Your task to perform on an android device: turn off notifications in google photos Image 0: 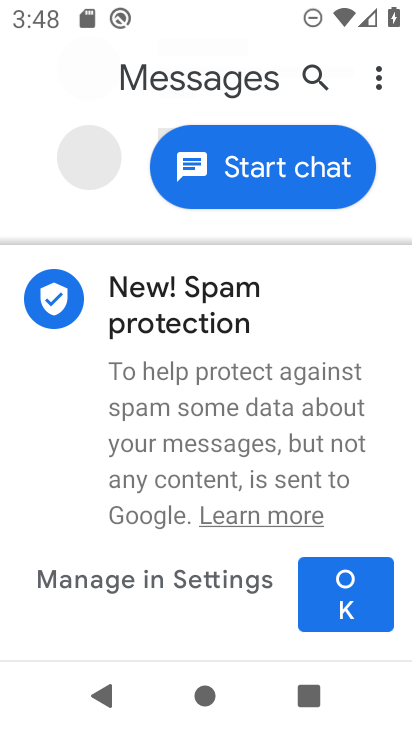
Step 0: press back button
Your task to perform on an android device: turn off notifications in google photos Image 1: 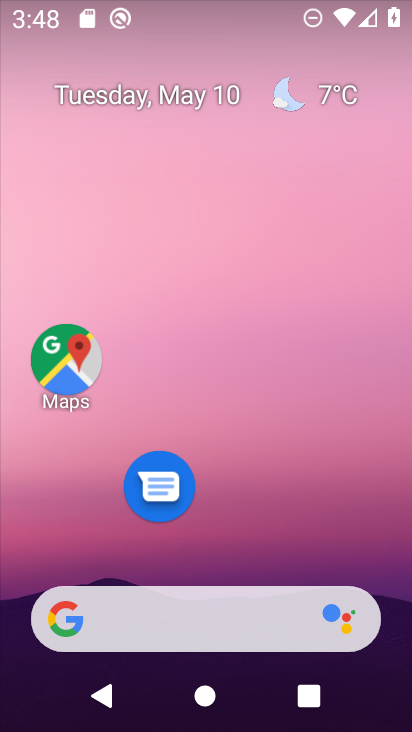
Step 1: drag from (324, 475) to (218, 32)
Your task to perform on an android device: turn off notifications in google photos Image 2: 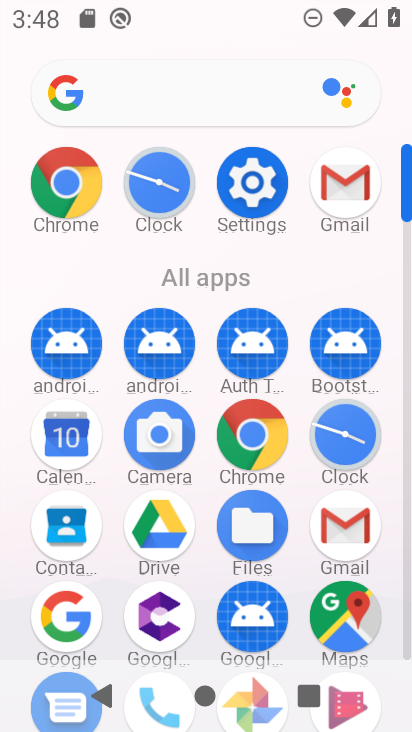
Step 2: drag from (9, 561) to (3, 216)
Your task to perform on an android device: turn off notifications in google photos Image 3: 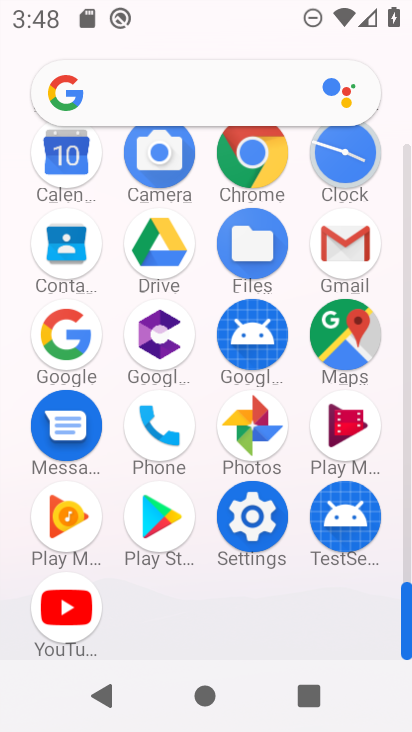
Step 3: click (250, 498)
Your task to perform on an android device: turn off notifications in google photos Image 4: 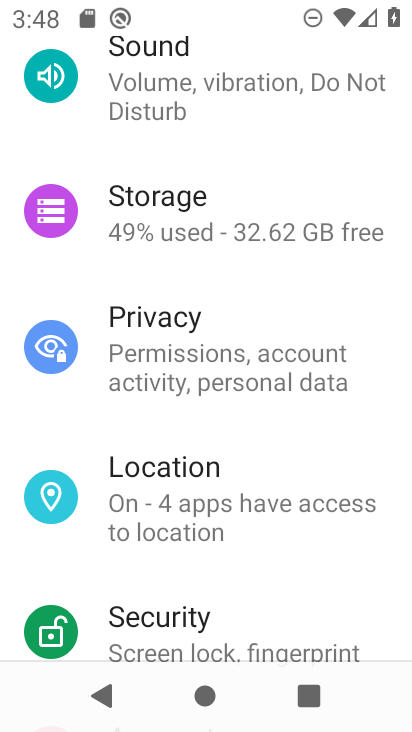
Step 4: press back button
Your task to perform on an android device: turn off notifications in google photos Image 5: 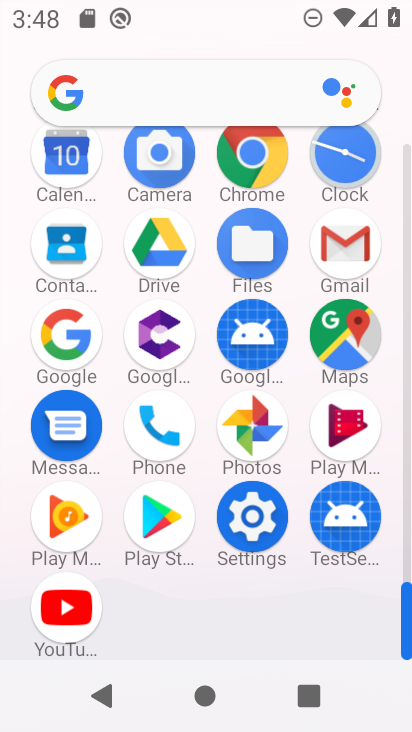
Step 5: click (251, 419)
Your task to perform on an android device: turn off notifications in google photos Image 6: 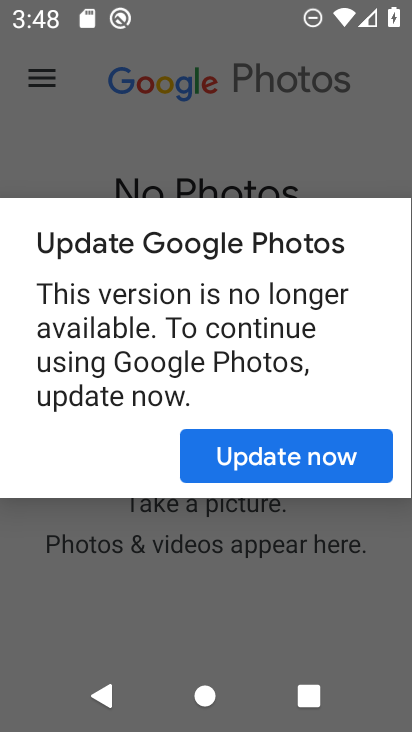
Step 6: click (289, 463)
Your task to perform on an android device: turn off notifications in google photos Image 7: 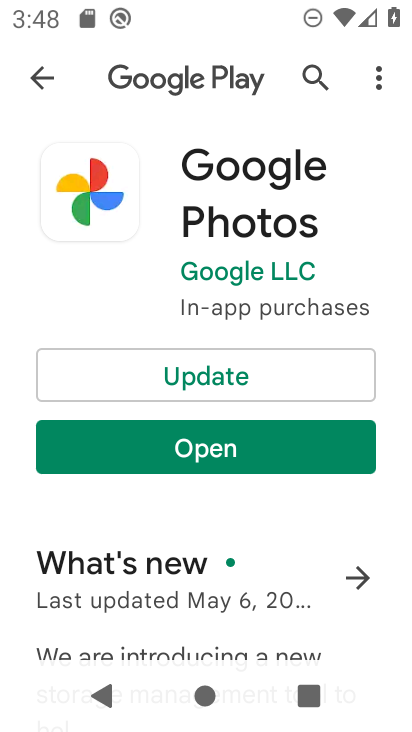
Step 7: click (182, 384)
Your task to perform on an android device: turn off notifications in google photos Image 8: 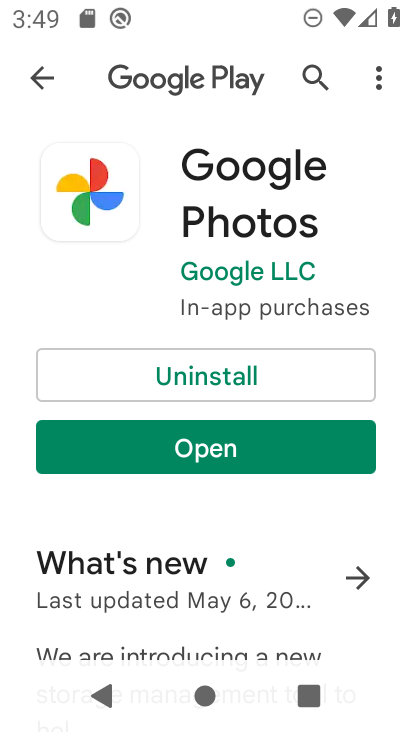
Step 8: click (220, 458)
Your task to perform on an android device: turn off notifications in google photos Image 9: 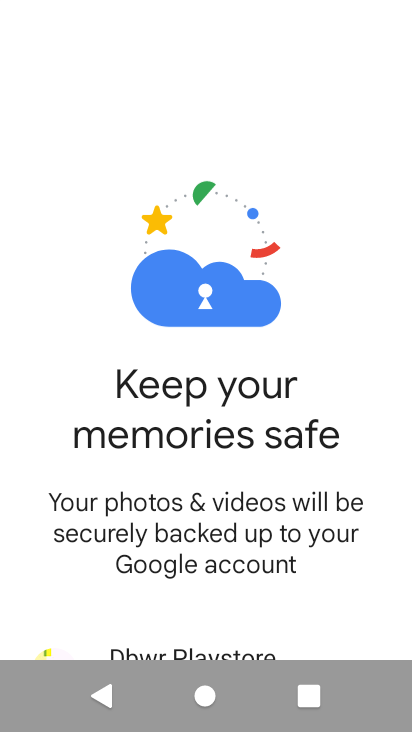
Step 9: click (115, 698)
Your task to perform on an android device: turn off notifications in google photos Image 10: 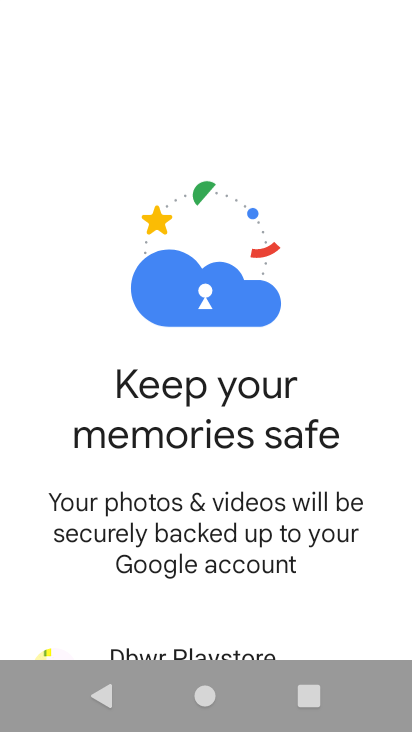
Step 10: click (106, 694)
Your task to perform on an android device: turn off notifications in google photos Image 11: 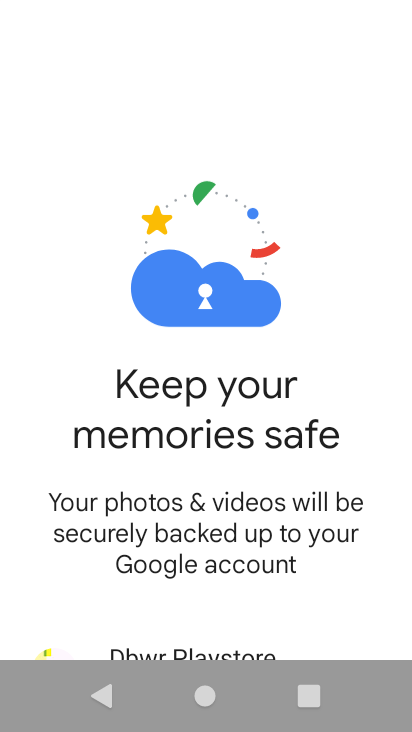
Step 11: click (107, 698)
Your task to perform on an android device: turn off notifications in google photos Image 12: 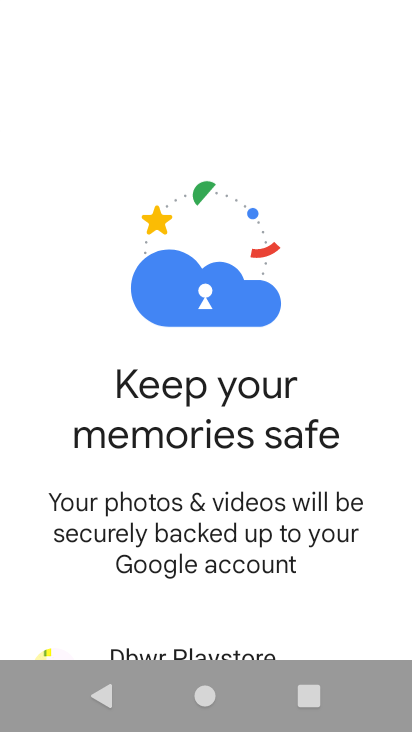
Step 12: click (94, 702)
Your task to perform on an android device: turn off notifications in google photos Image 13: 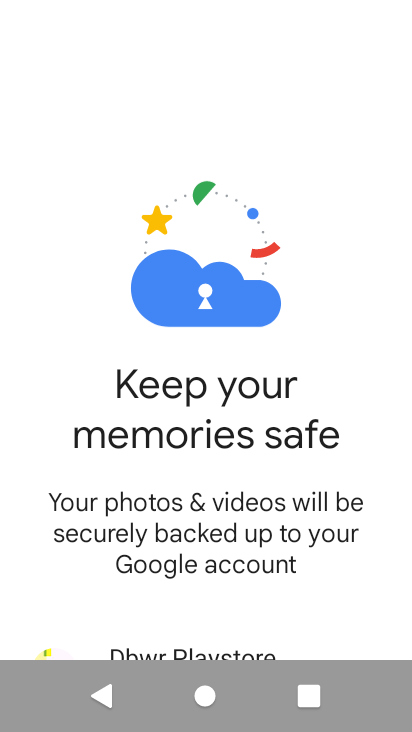
Step 13: drag from (321, 608) to (335, 221)
Your task to perform on an android device: turn off notifications in google photos Image 14: 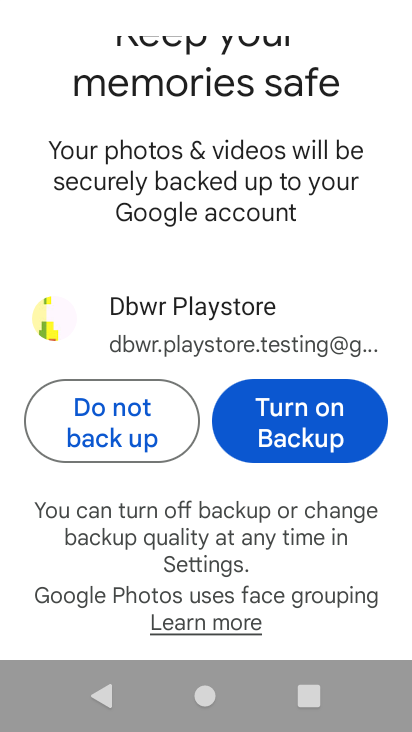
Step 14: click (270, 408)
Your task to perform on an android device: turn off notifications in google photos Image 15: 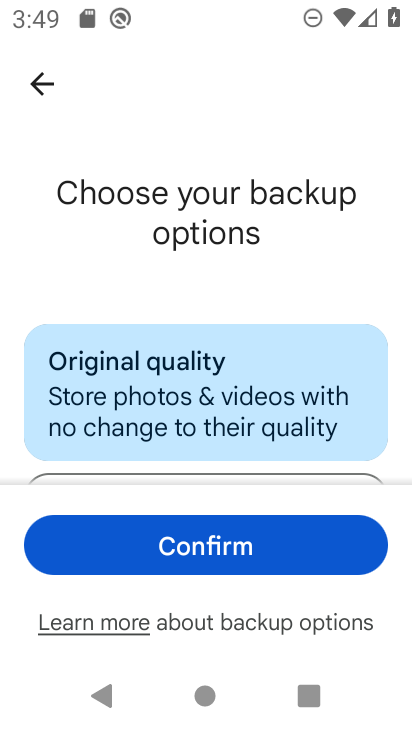
Step 15: click (235, 532)
Your task to perform on an android device: turn off notifications in google photos Image 16: 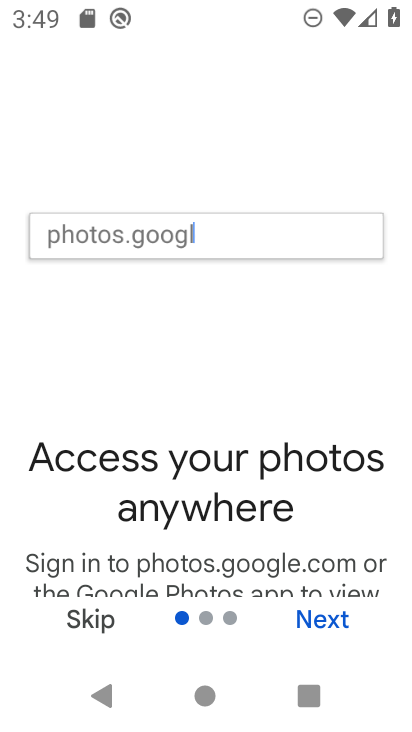
Step 16: click (323, 603)
Your task to perform on an android device: turn off notifications in google photos Image 17: 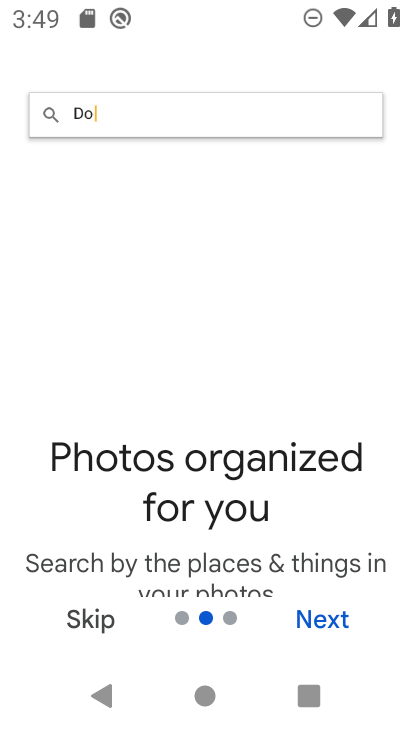
Step 17: click (323, 603)
Your task to perform on an android device: turn off notifications in google photos Image 18: 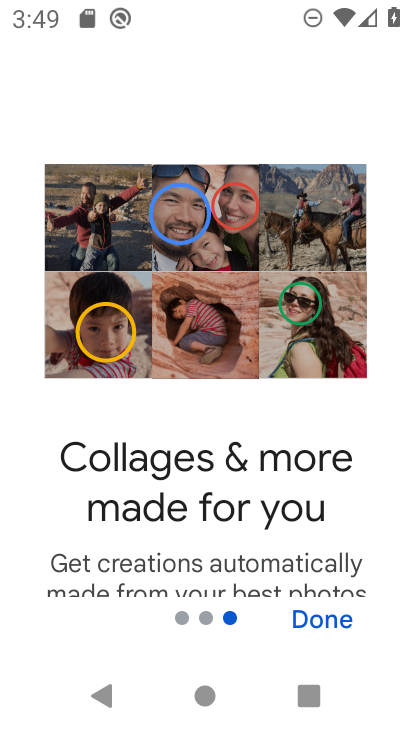
Step 18: click (321, 605)
Your task to perform on an android device: turn off notifications in google photos Image 19: 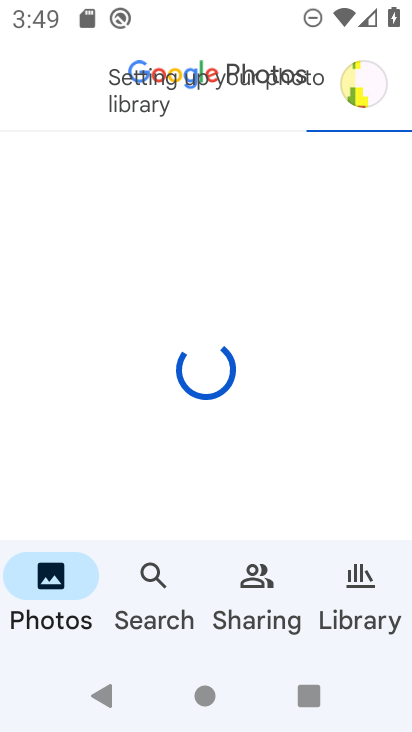
Step 19: click (352, 65)
Your task to perform on an android device: turn off notifications in google photos Image 20: 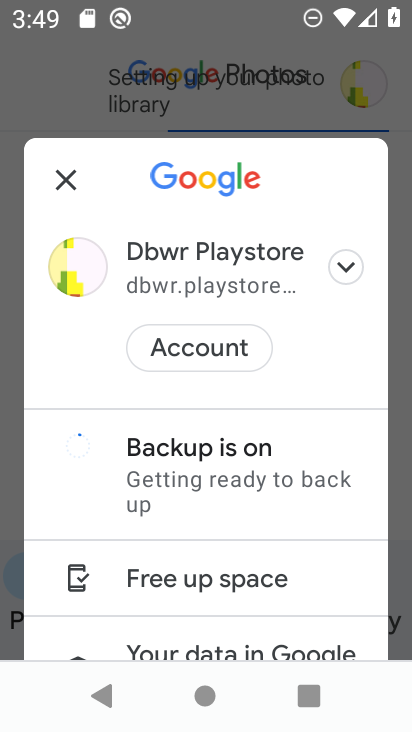
Step 20: drag from (259, 555) to (298, 190)
Your task to perform on an android device: turn off notifications in google photos Image 21: 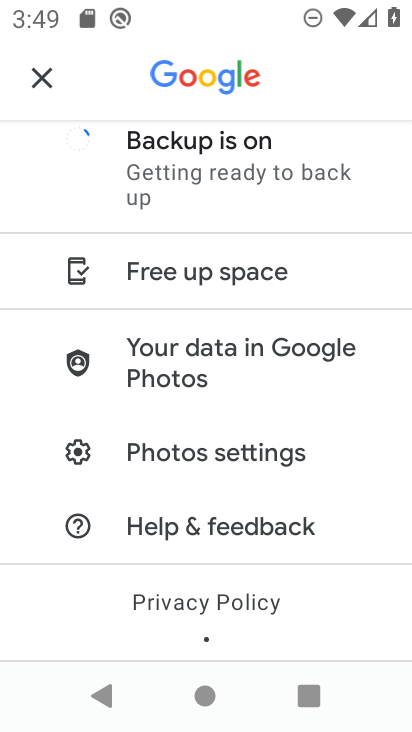
Step 21: click (227, 449)
Your task to perform on an android device: turn off notifications in google photos Image 22: 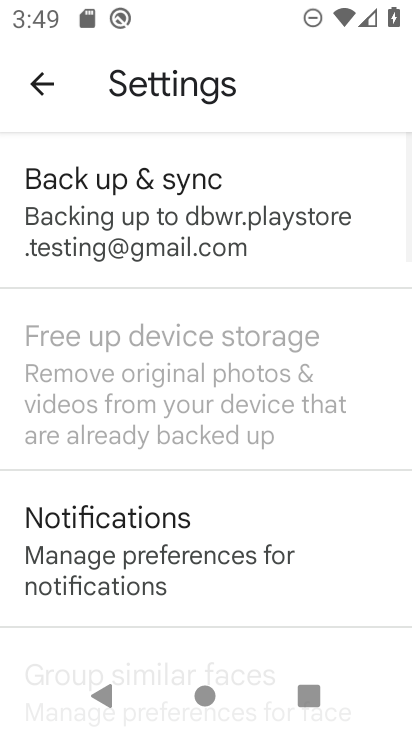
Step 22: click (203, 509)
Your task to perform on an android device: turn off notifications in google photos Image 23: 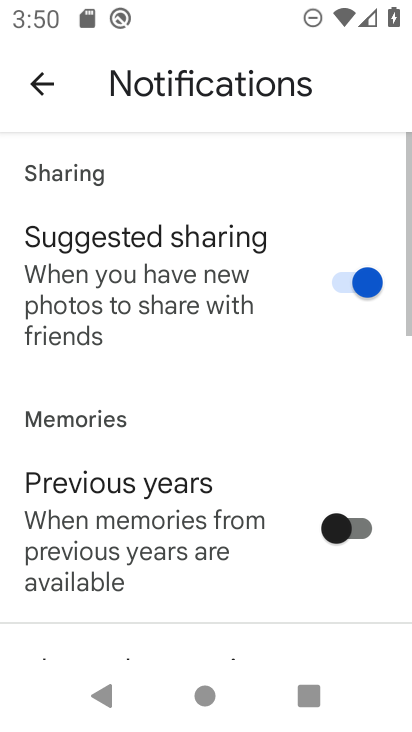
Step 23: drag from (197, 508) to (197, 152)
Your task to perform on an android device: turn off notifications in google photos Image 24: 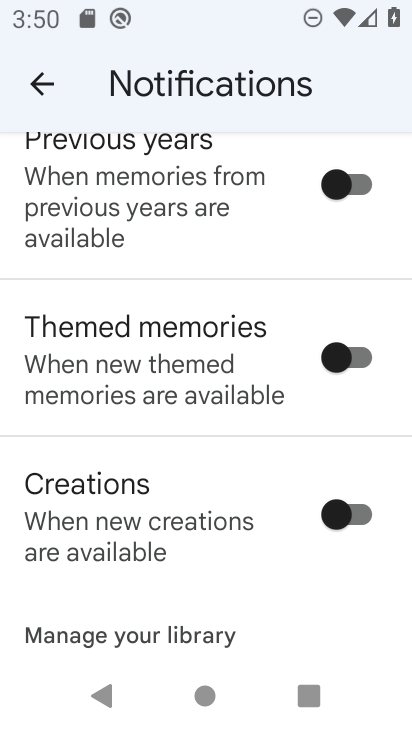
Step 24: drag from (200, 511) to (196, 140)
Your task to perform on an android device: turn off notifications in google photos Image 25: 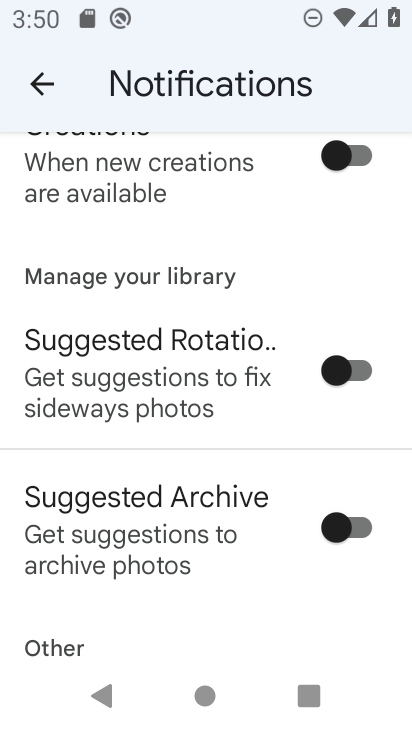
Step 25: drag from (167, 558) to (171, 148)
Your task to perform on an android device: turn off notifications in google photos Image 26: 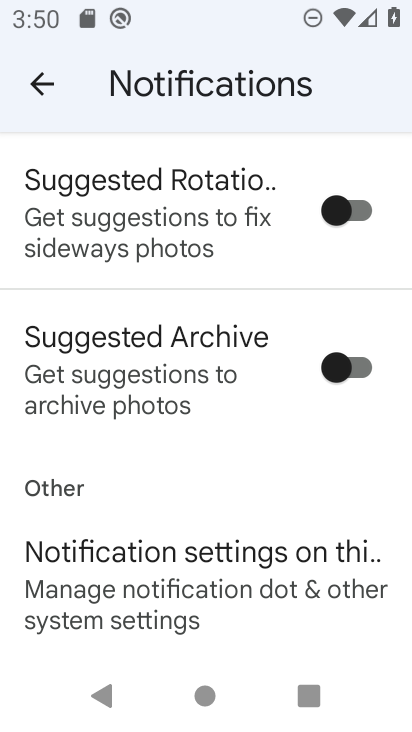
Step 26: click (160, 551)
Your task to perform on an android device: turn off notifications in google photos Image 27: 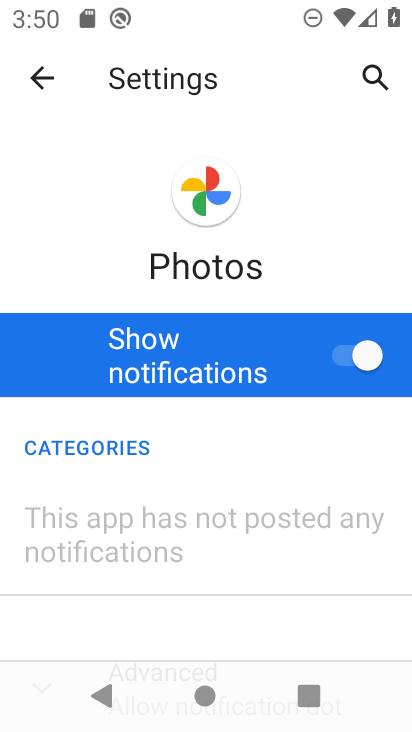
Step 27: click (351, 367)
Your task to perform on an android device: turn off notifications in google photos Image 28: 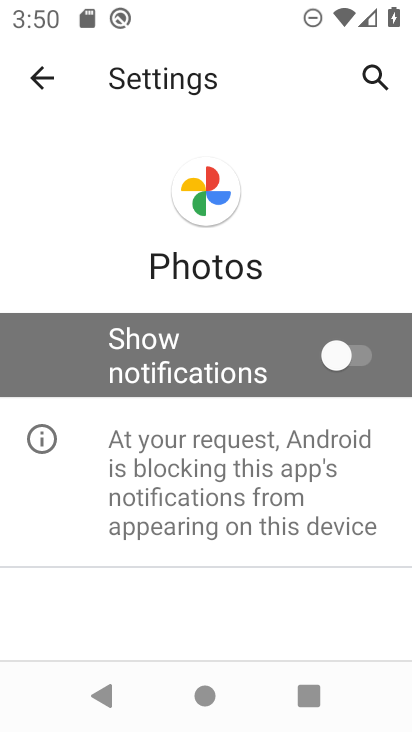
Step 28: task complete